Your task to perform on an android device: turn notification dots off Image 0: 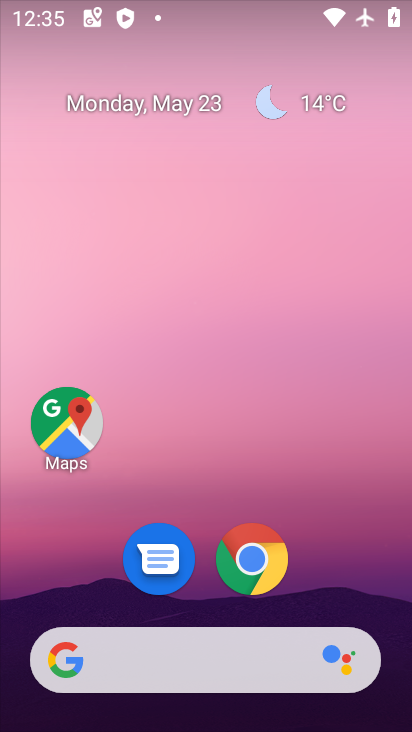
Step 0: drag from (328, 621) to (358, 10)
Your task to perform on an android device: turn notification dots off Image 1: 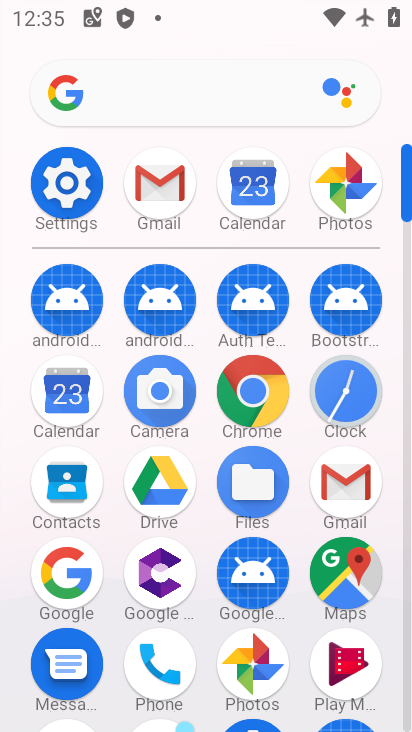
Step 1: click (69, 190)
Your task to perform on an android device: turn notification dots off Image 2: 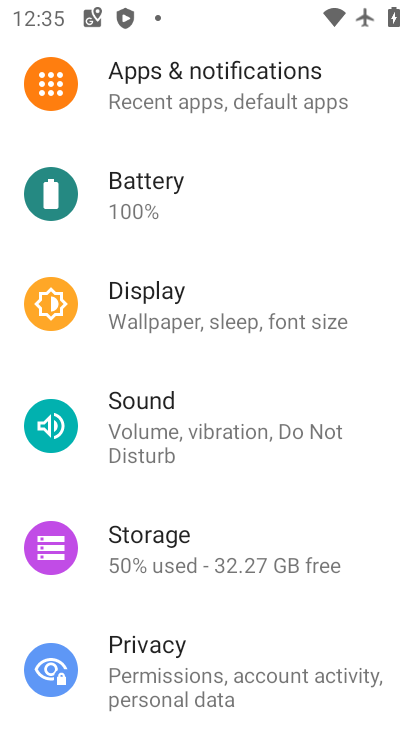
Step 2: click (231, 101)
Your task to perform on an android device: turn notification dots off Image 3: 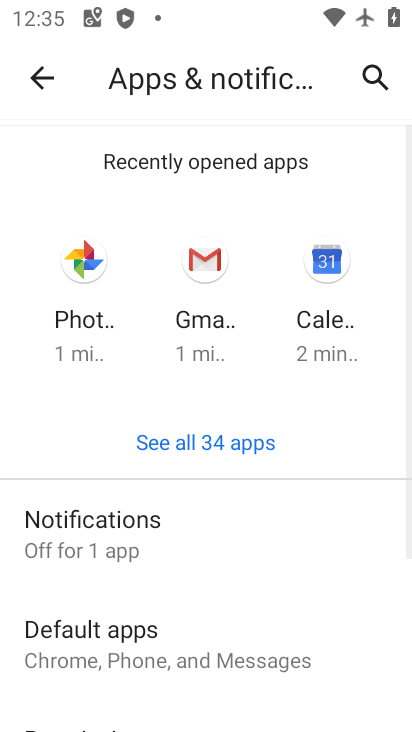
Step 3: click (100, 543)
Your task to perform on an android device: turn notification dots off Image 4: 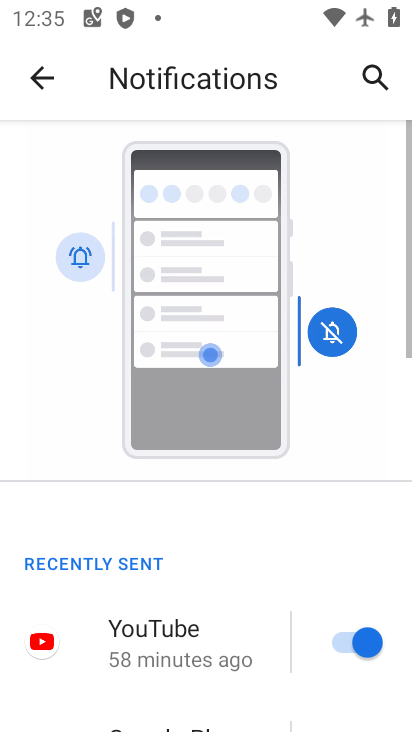
Step 4: drag from (193, 603) to (192, 6)
Your task to perform on an android device: turn notification dots off Image 5: 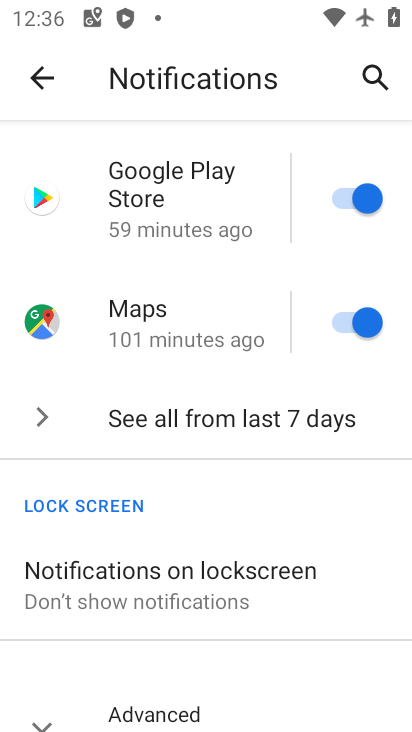
Step 5: drag from (167, 538) to (150, 69)
Your task to perform on an android device: turn notification dots off Image 6: 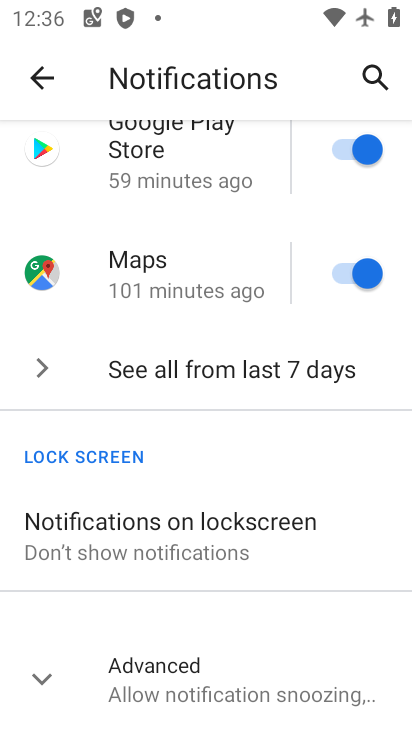
Step 6: click (40, 690)
Your task to perform on an android device: turn notification dots off Image 7: 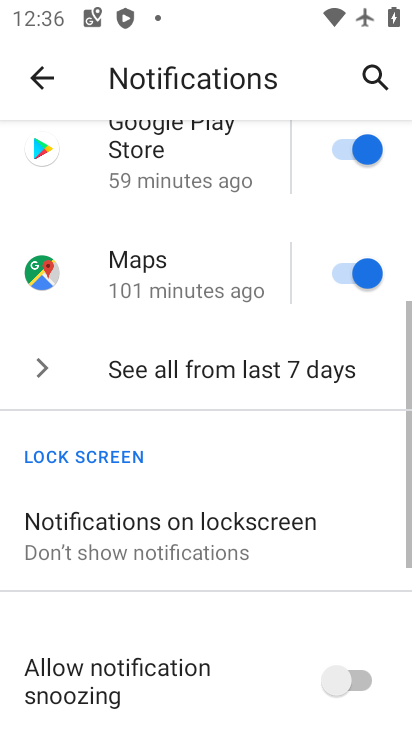
Step 7: drag from (150, 663) to (147, 59)
Your task to perform on an android device: turn notification dots off Image 8: 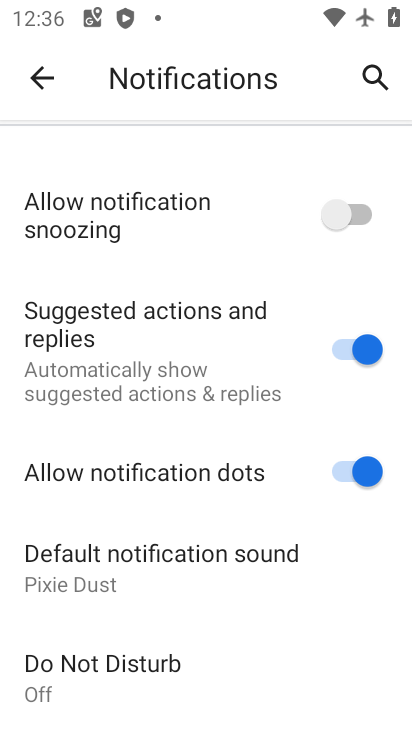
Step 8: click (352, 469)
Your task to perform on an android device: turn notification dots off Image 9: 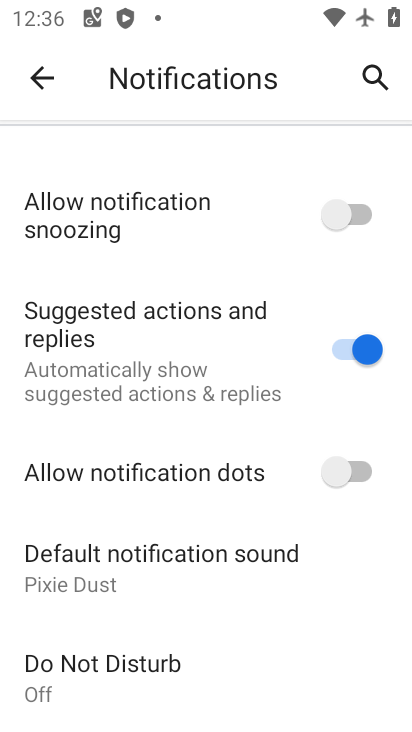
Step 9: task complete